Your task to perform on an android device: set an alarm Image 0: 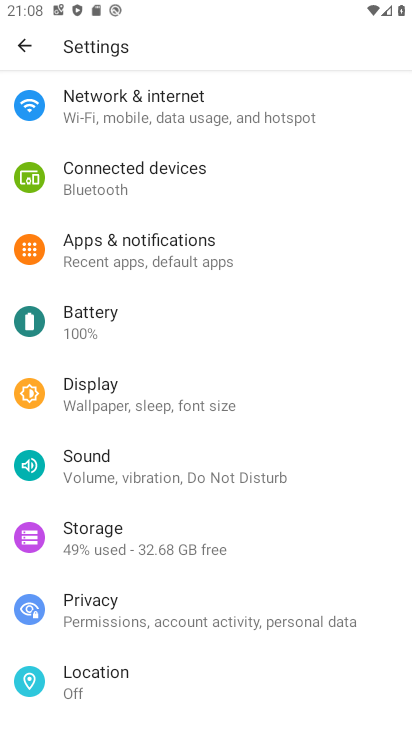
Step 0: press home button
Your task to perform on an android device: set an alarm Image 1: 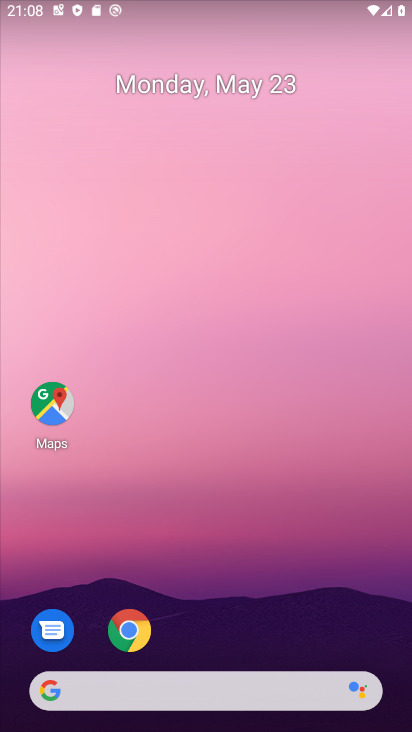
Step 1: drag from (194, 657) to (186, 244)
Your task to perform on an android device: set an alarm Image 2: 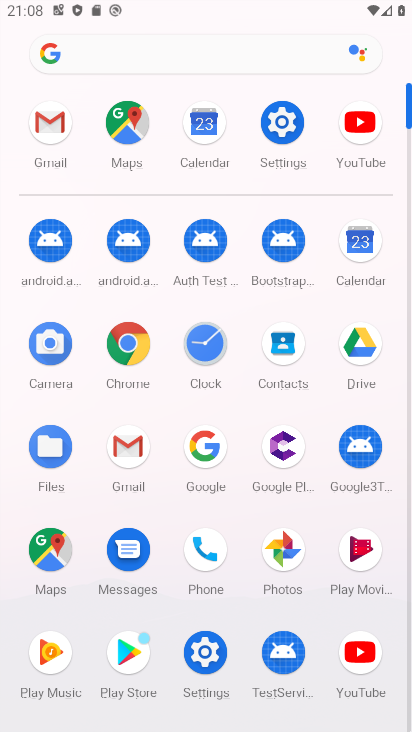
Step 2: click (213, 347)
Your task to perform on an android device: set an alarm Image 3: 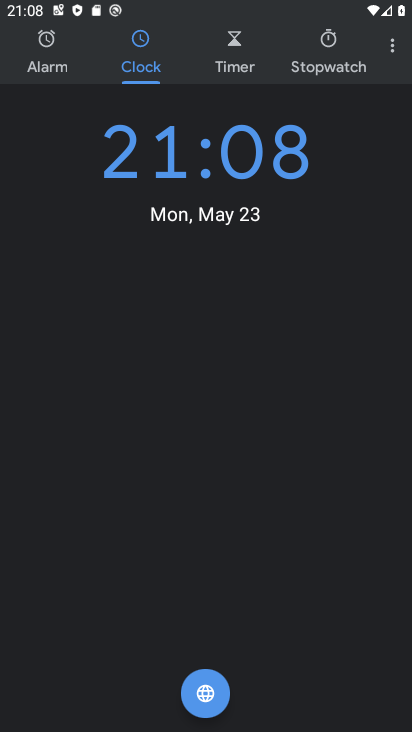
Step 3: click (63, 64)
Your task to perform on an android device: set an alarm Image 4: 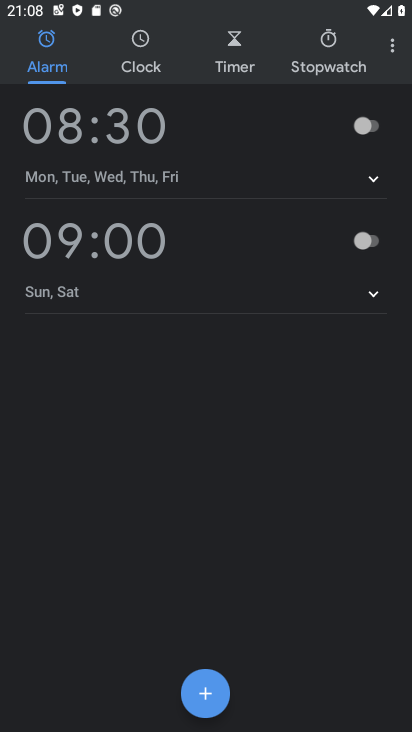
Step 4: click (360, 123)
Your task to perform on an android device: set an alarm Image 5: 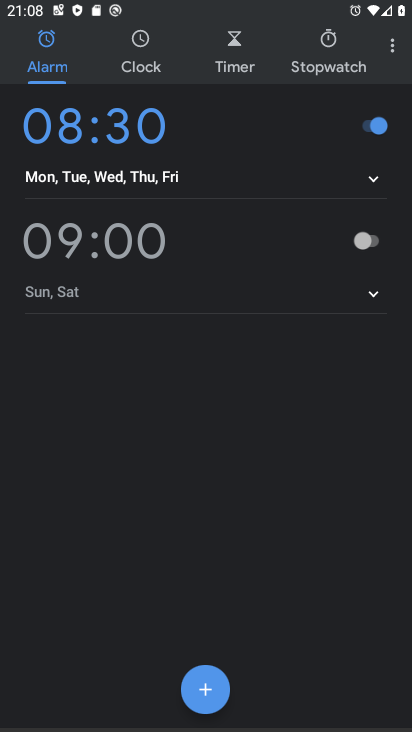
Step 5: task complete